Your task to perform on an android device: open app "Calculator" (install if not already installed) Image 0: 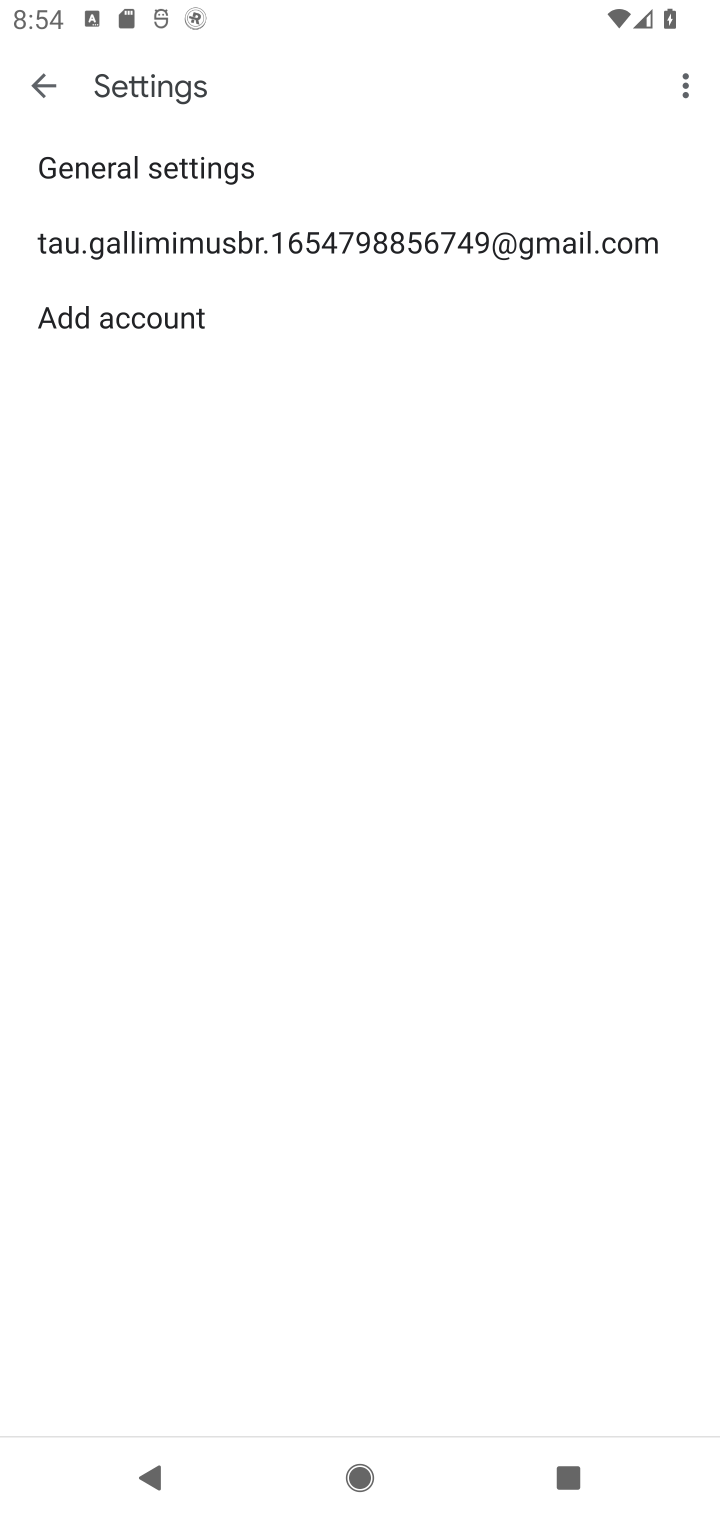
Step 0: press home button
Your task to perform on an android device: open app "Calculator" (install if not already installed) Image 1: 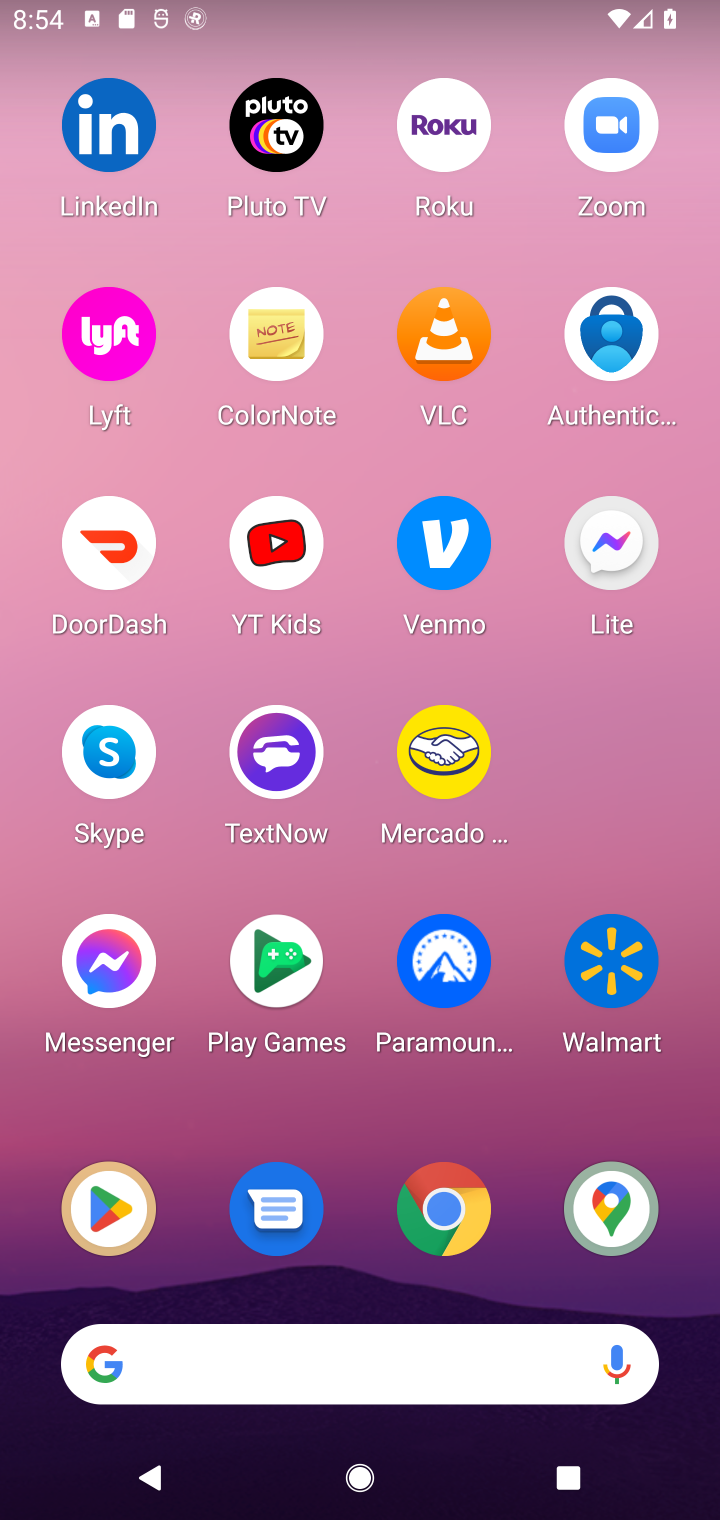
Step 1: click (117, 1209)
Your task to perform on an android device: open app "Calculator" (install if not already installed) Image 2: 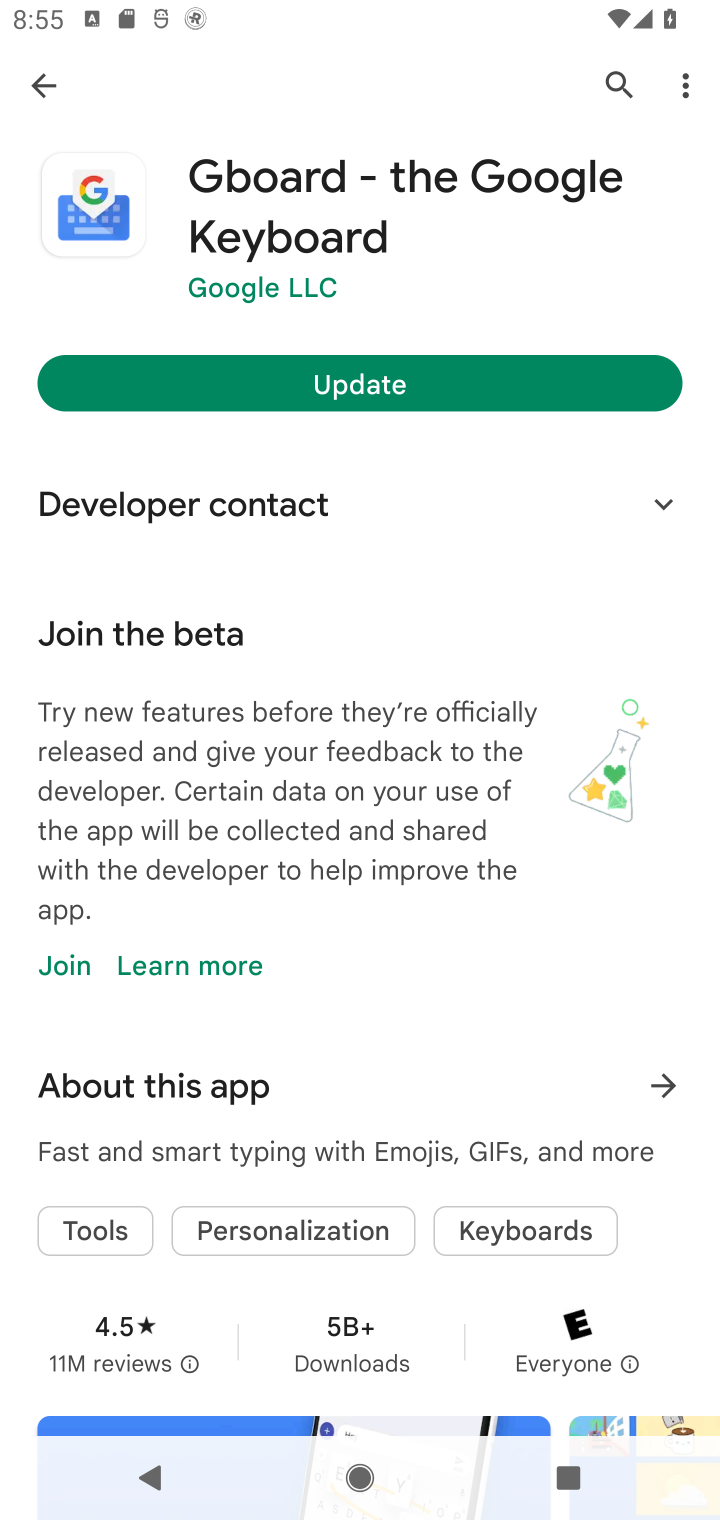
Step 2: click (607, 87)
Your task to perform on an android device: open app "Calculator" (install if not already installed) Image 3: 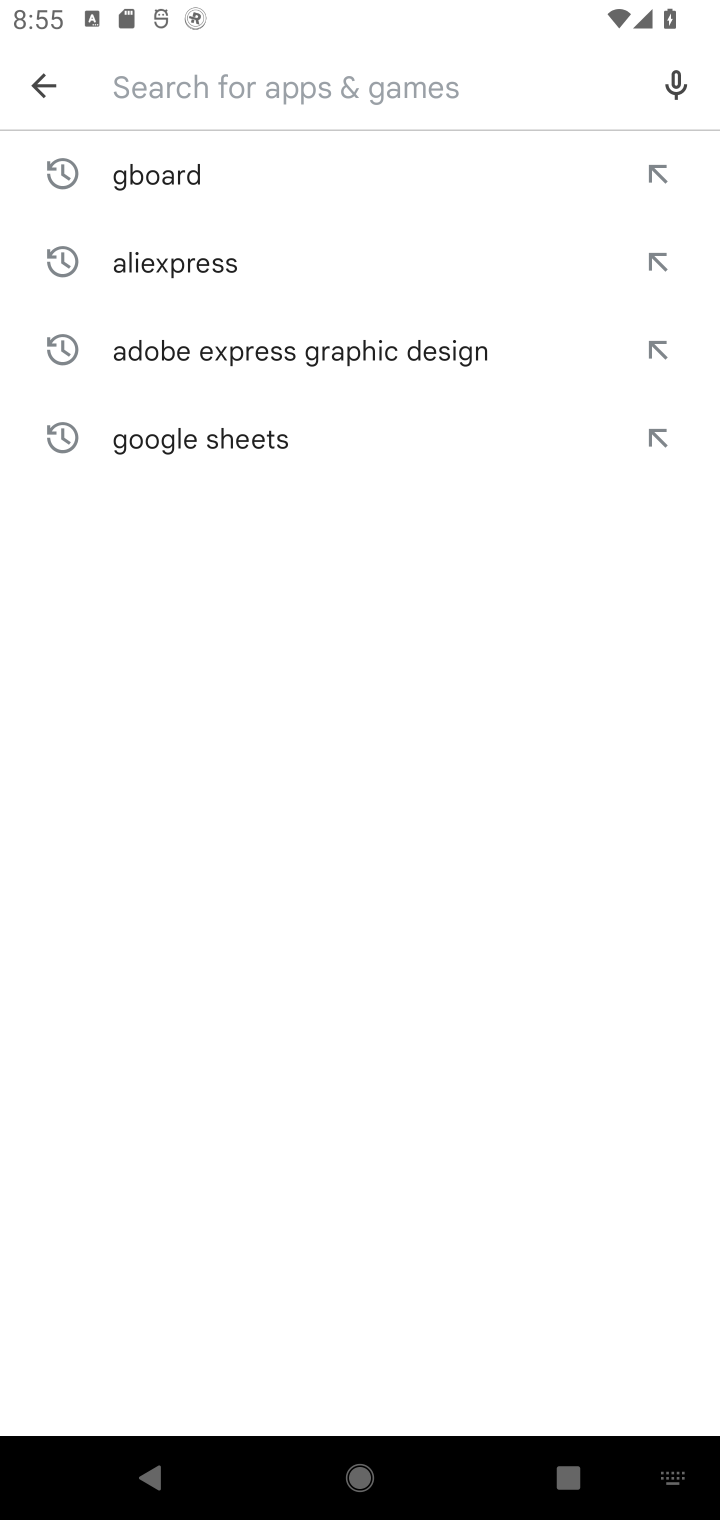
Step 3: type "Calculator"
Your task to perform on an android device: open app "Calculator" (install if not already installed) Image 4: 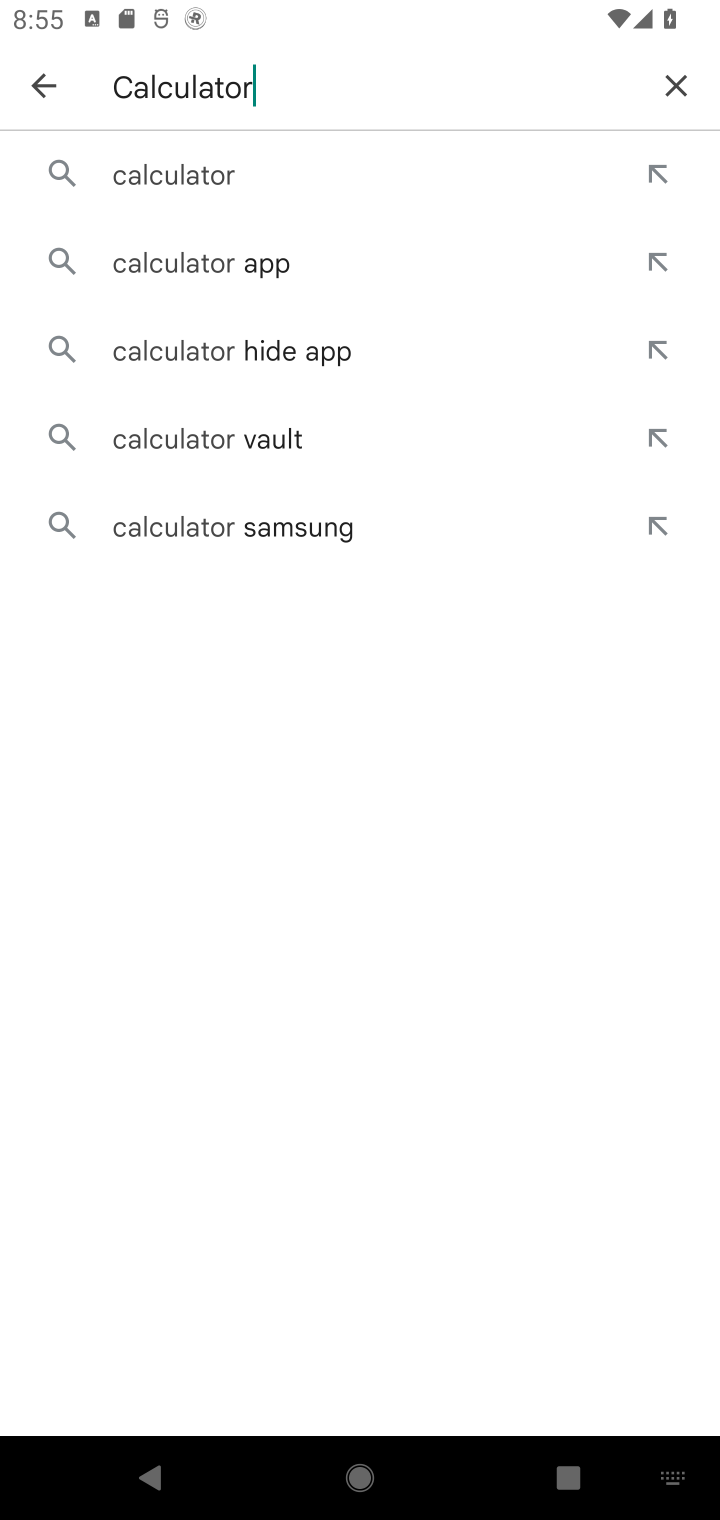
Step 4: click (87, 193)
Your task to perform on an android device: open app "Calculator" (install if not already installed) Image 5: 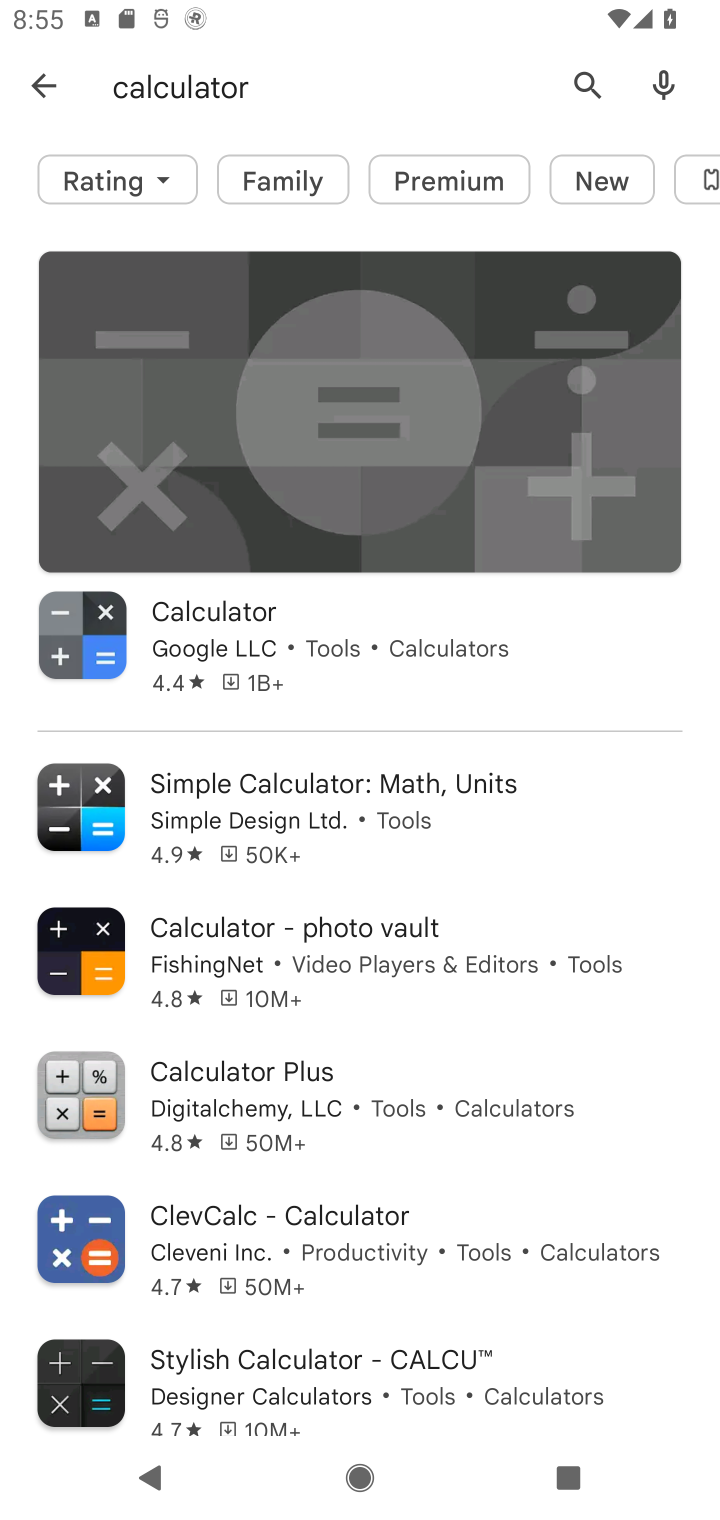
Step 5: click (149, 638)
Your task to perform on an android device: open app "Calculator" (install if not already installed) Image 6: 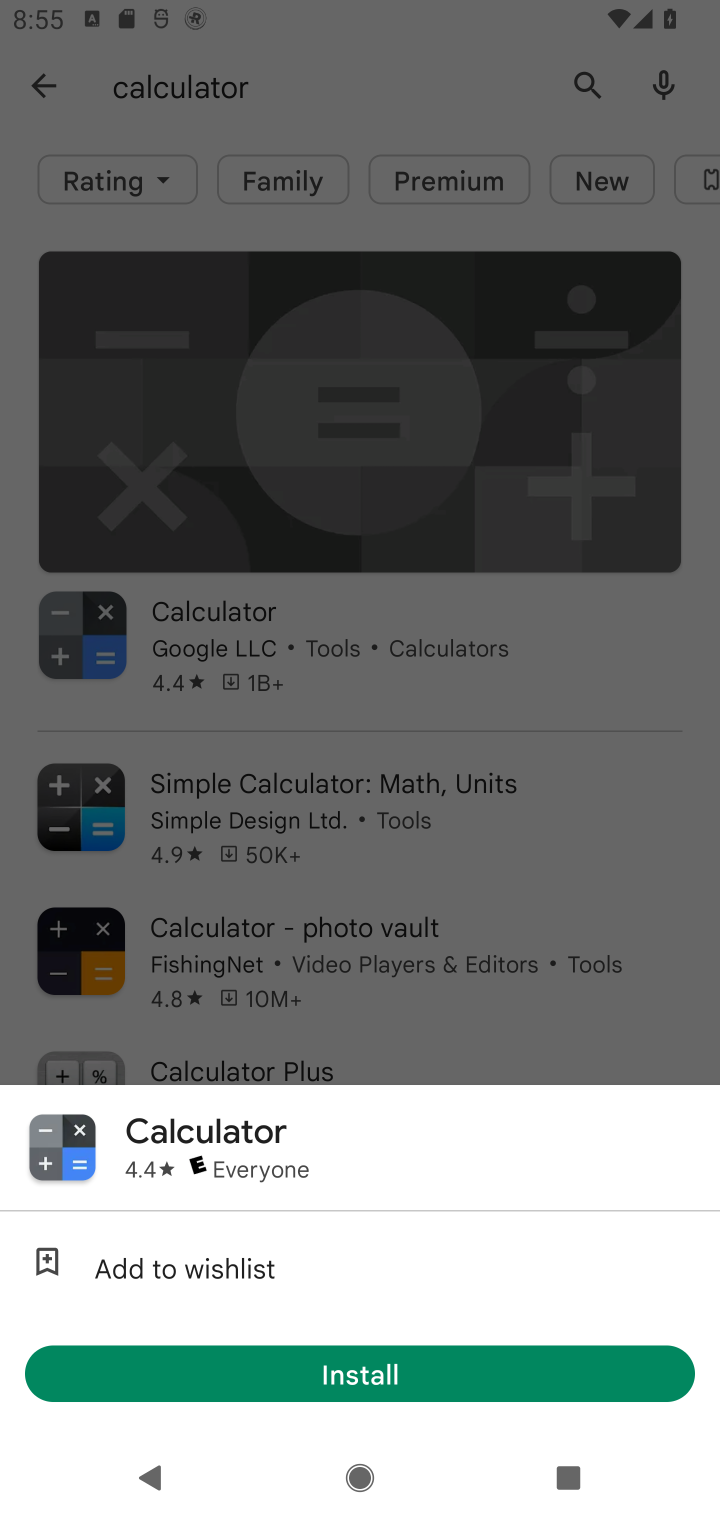
Step 6: click (381, 1384)
Your task to perform on an android device: open app "Calculator" (install if not already installed) Image 7: 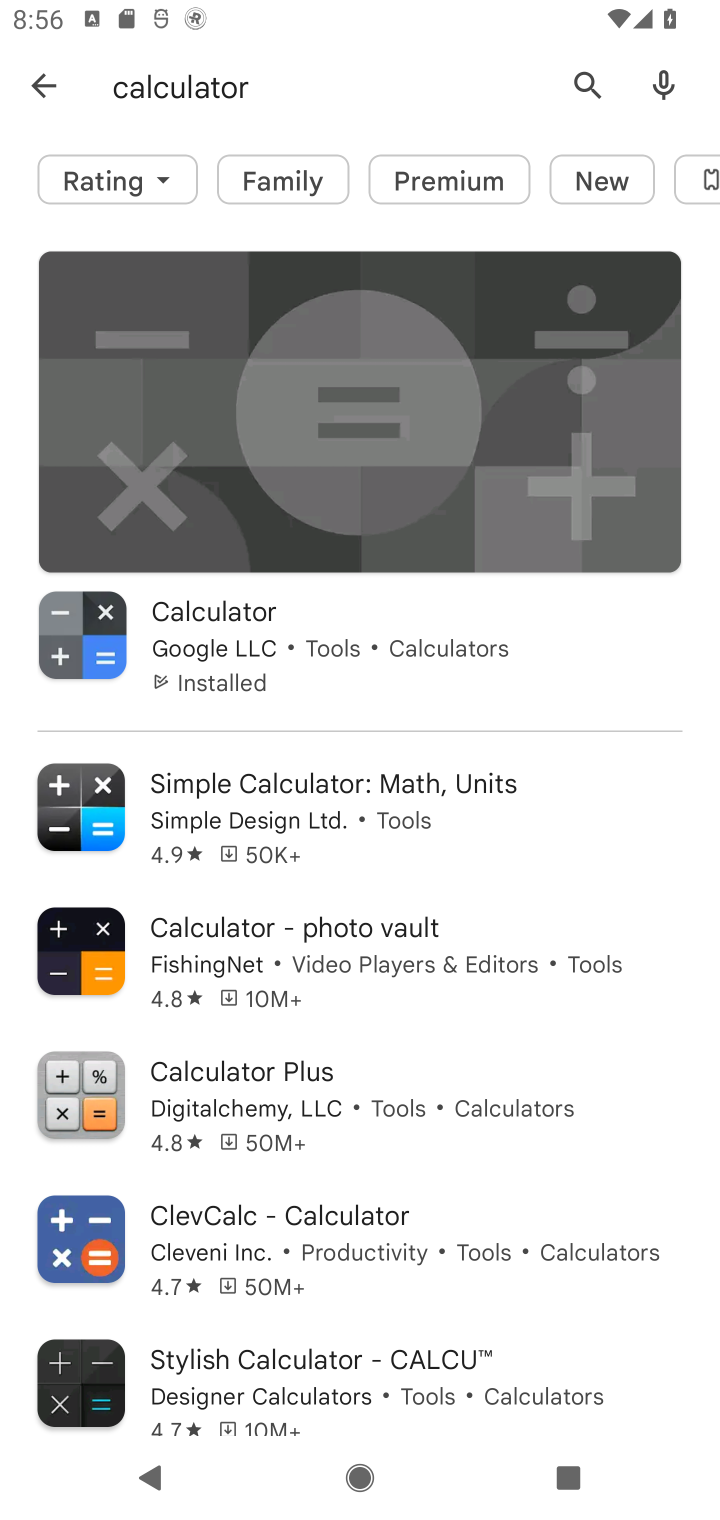
Step 7: click (216, 659)
Your task to perform on an android device: open app "Calculator" (install if not already installed) Image 8: 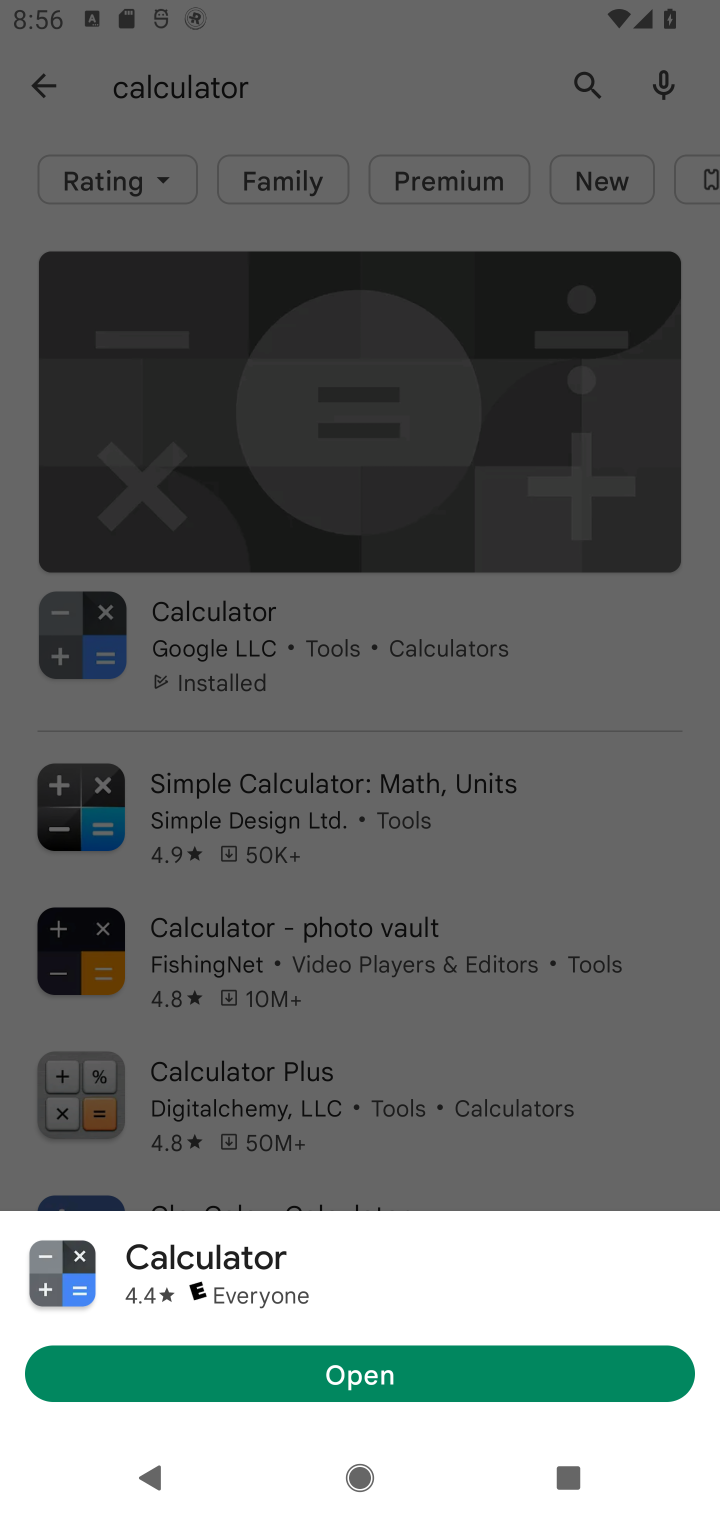
Step 8: click (311, 1370)
Your task to perform on an android device: open app "Calculator" (install if not already installed) Image 9: 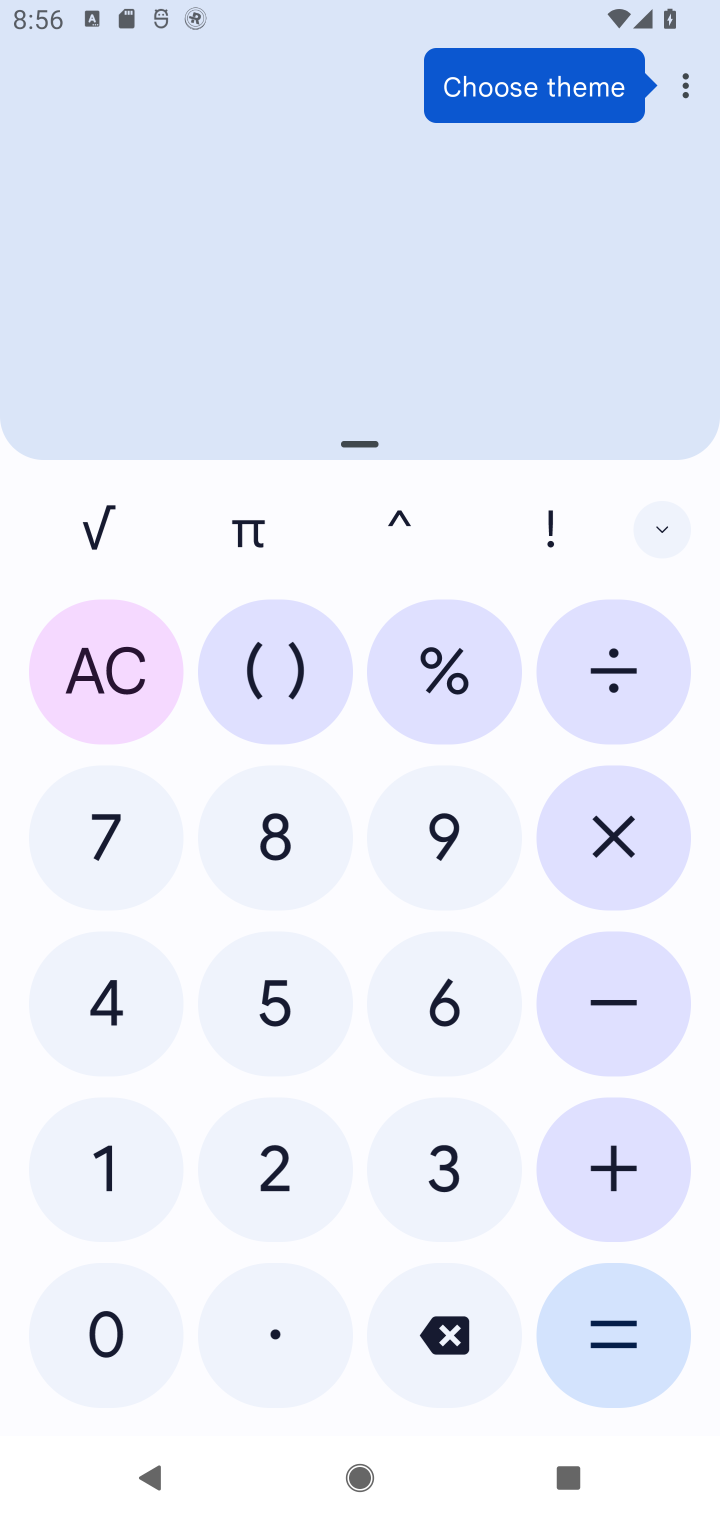
Step 9: task complete